Your task to perform on an android device: refresh tabs in the chrome app Image 0: 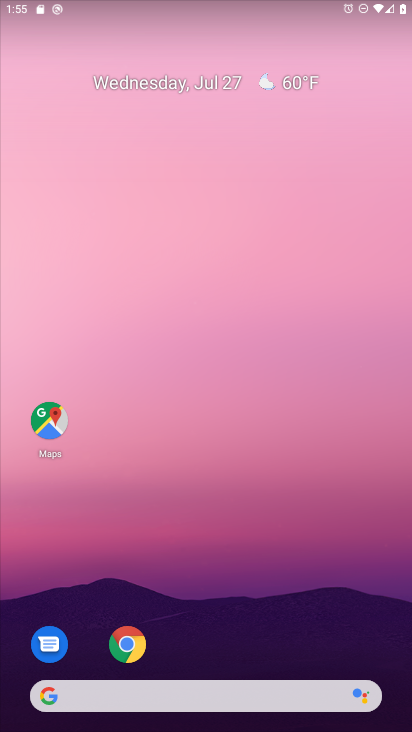
Step 0: drag from (183, 467) to (225, 14)
Your task to perform on an android device: refresh tabs in the chrome app Image 1: 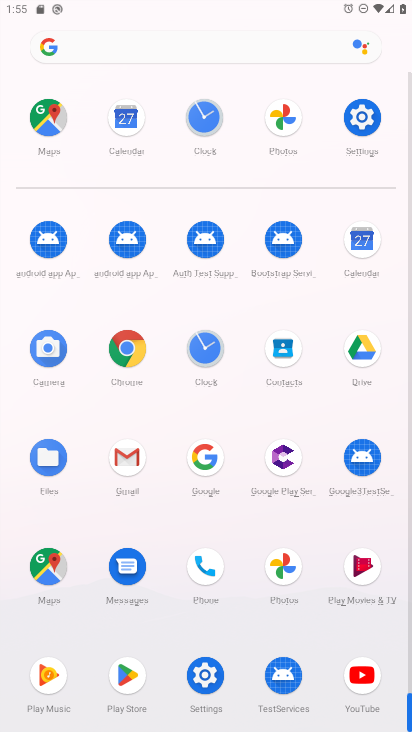
Step 1: click (131, 341)
Your task to perform on an android device: refresh tabs in the chrome app Image 2: 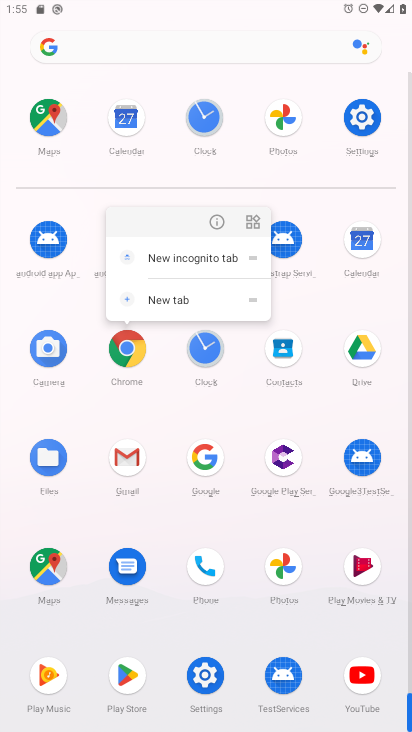
Step 2: click (215, 224)
Your task to perform on an android device: refresh tabs in the chrome app Image 3: 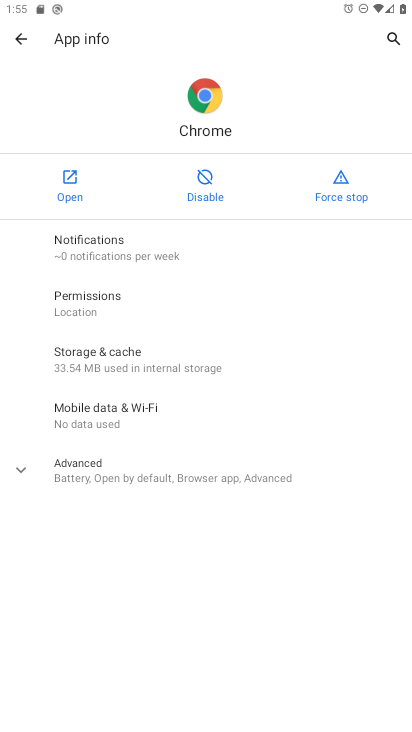
Step 3: click (66, 196)
Your task to perform on an android device: refresh tabs in the chrome app Image 4: 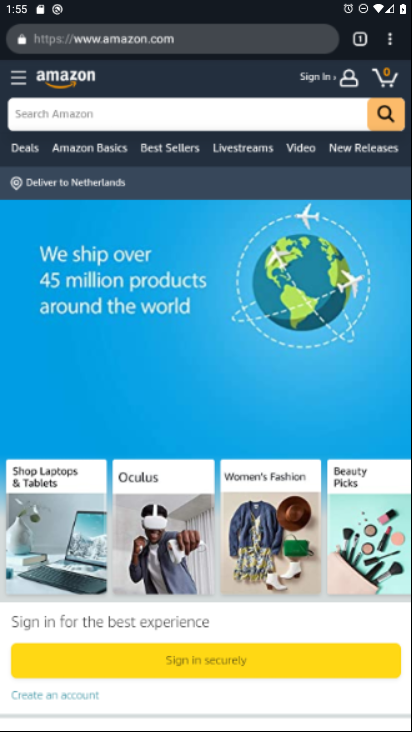
Step 4: drag from (173, 481) to (206, 9)
Your task to perform on an android device: refresh tabs in the chrome app Image 5: 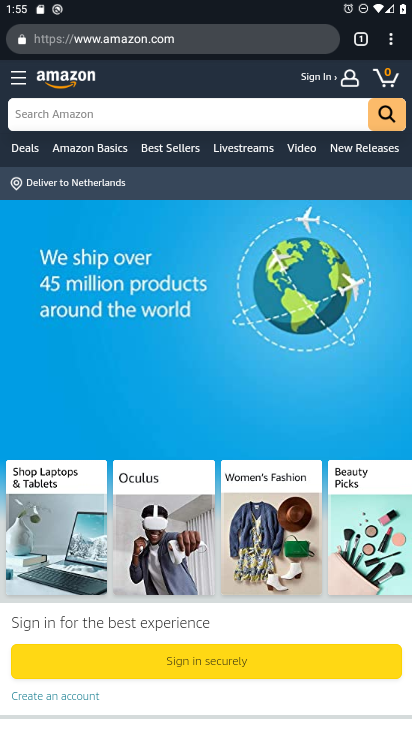
Step 5: drag from (234, 280) to (249, 561)
Your task to perform on an android device: refresh tabs in the chrome app Image 6: 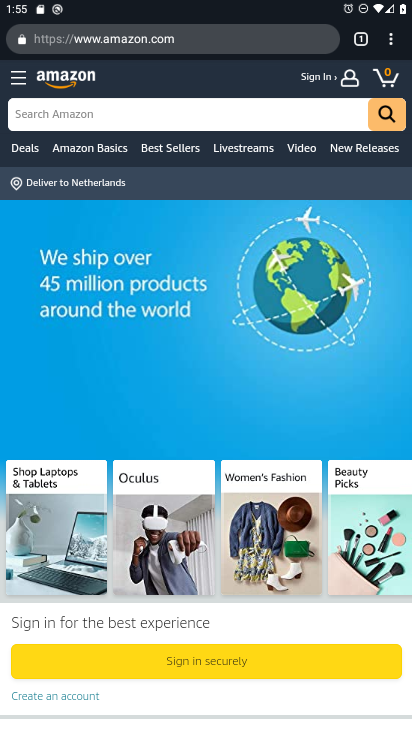
Step 6: click (396, 42)
Your task to perform on an android device: refresh tabs in the chrome app Image 7: 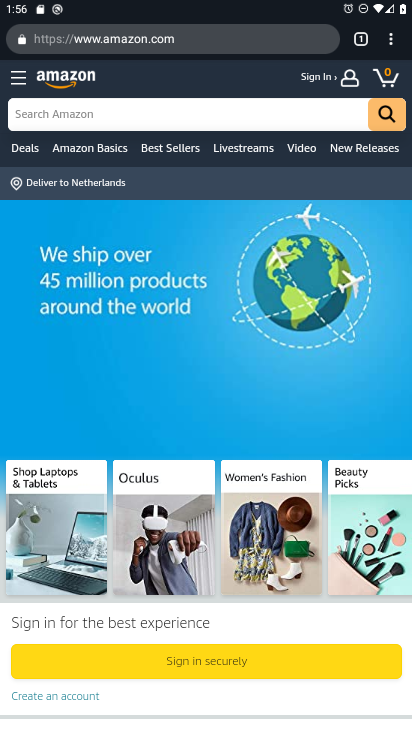
Step 7: click (392, 36)
Your task to perform on an android device: refresh tabs in the chrome app Image 8: 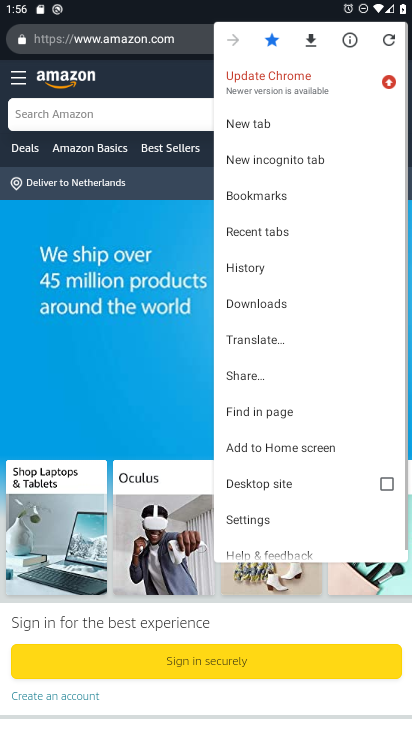
Step 8: click (392, 36)
Your task to perform on an android device: refresh tabs in the chrome app Image 9: 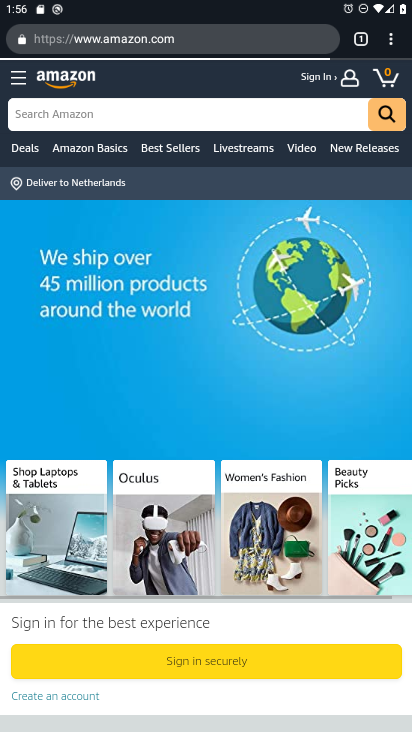
Step 9: task complete